Your task to perform on an android device: Turn on the flashlight Image 0: 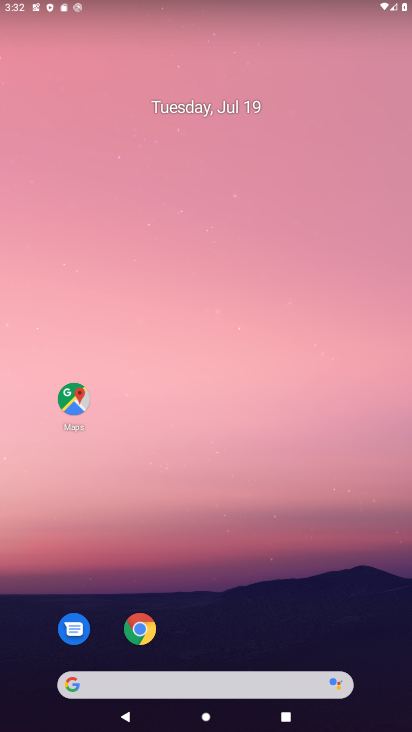
Step 0: drag from (157, 3) to (240, 525)
Your task to perform on an android device: Turn on the flashlight Image 1: 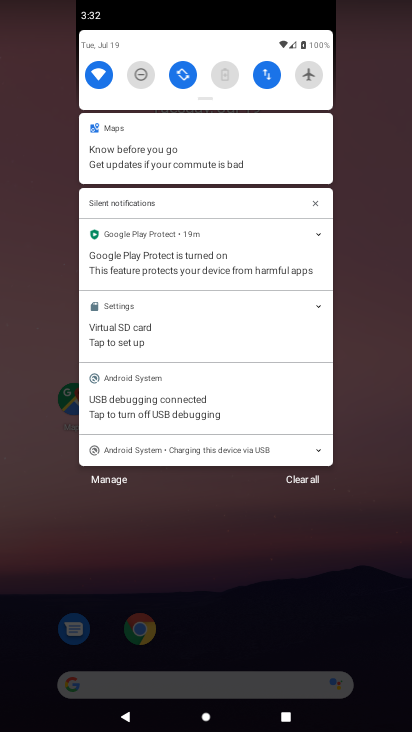
Step 1: drag from (244, 88) to (321, 571)
Your task to perform on an android device: Turn on the flashlight Image 2: 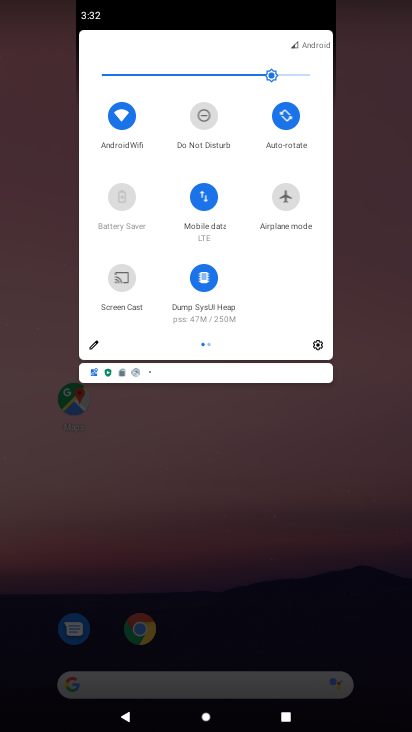
Step 2: drag from (260, 258) to (53, 262)
Your task to perform on an android device: Turn on the flashlight Image 3: 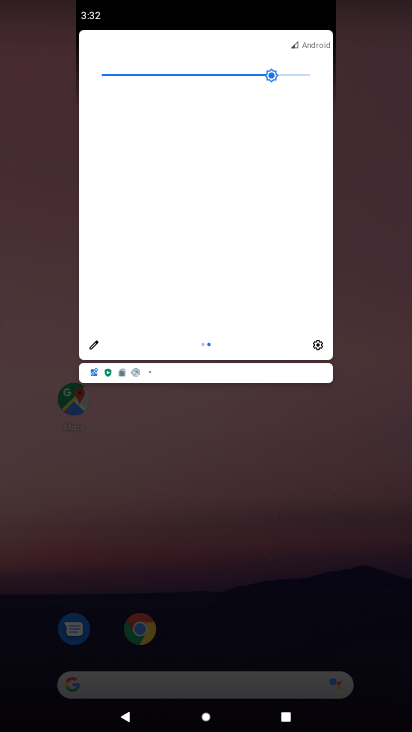
Step 3: click (91, 346)
Your task to perform on an android device: Turn on the flashlight Image 4: 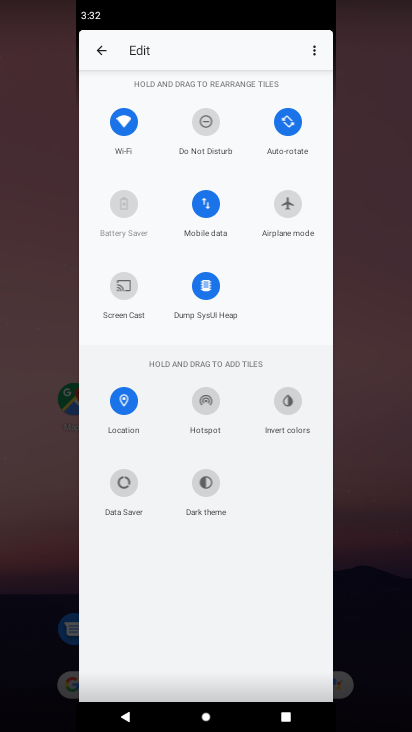
Step 4: task complete